Your task to perform on an android device: What's on my calendar today? Image 0: 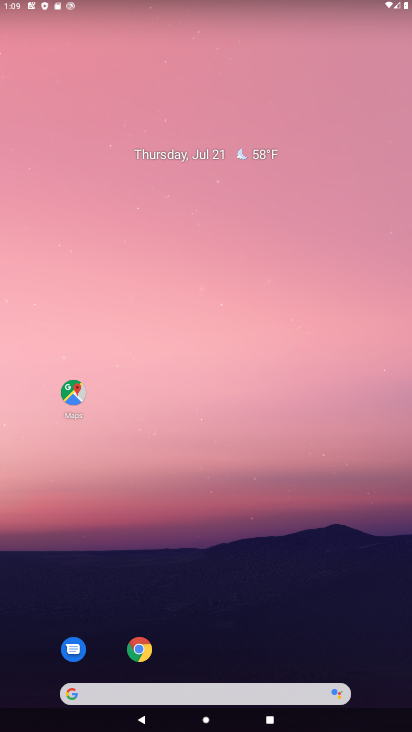
Step 0: drag from (254, 671) to (232, 124)
Your task to perform on an android device: What's on my calendar today? Image 1: 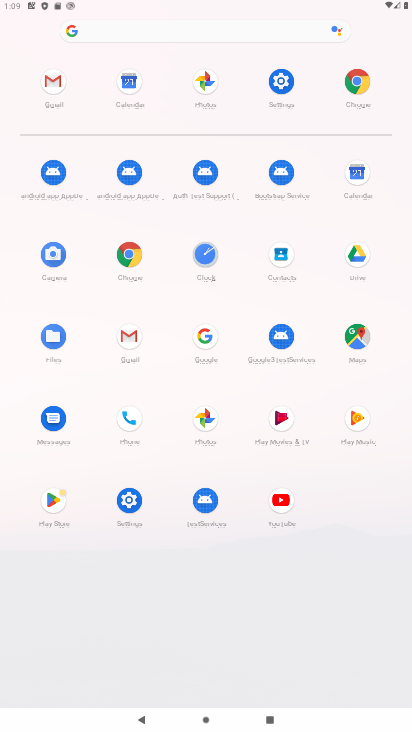
Step 1: click (149, 85)
Your task to perform on an android device: What's on my calendar today? Image 2: 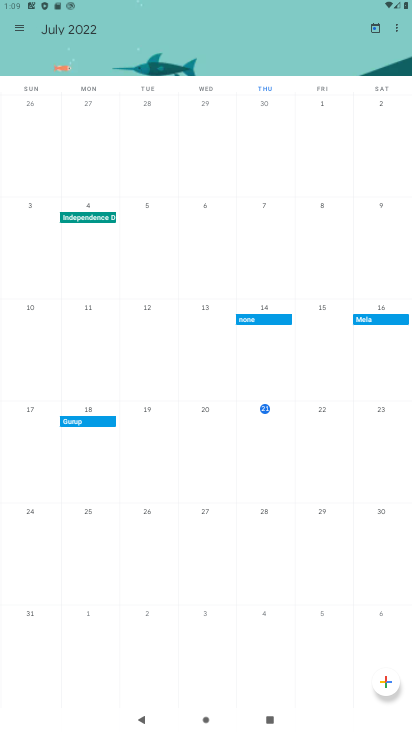
Step 2: task complete